Your task to perform on an android device: install app "Google Drive" Image 0: 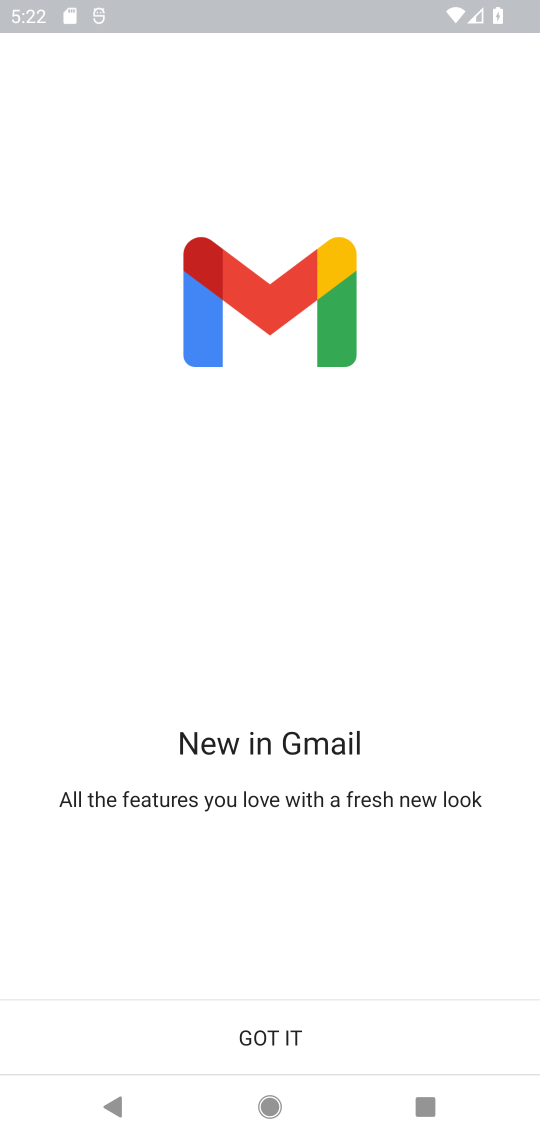
Step 0: press home button
Your task to perform on an android device: install app "Google Drive" Image 1: 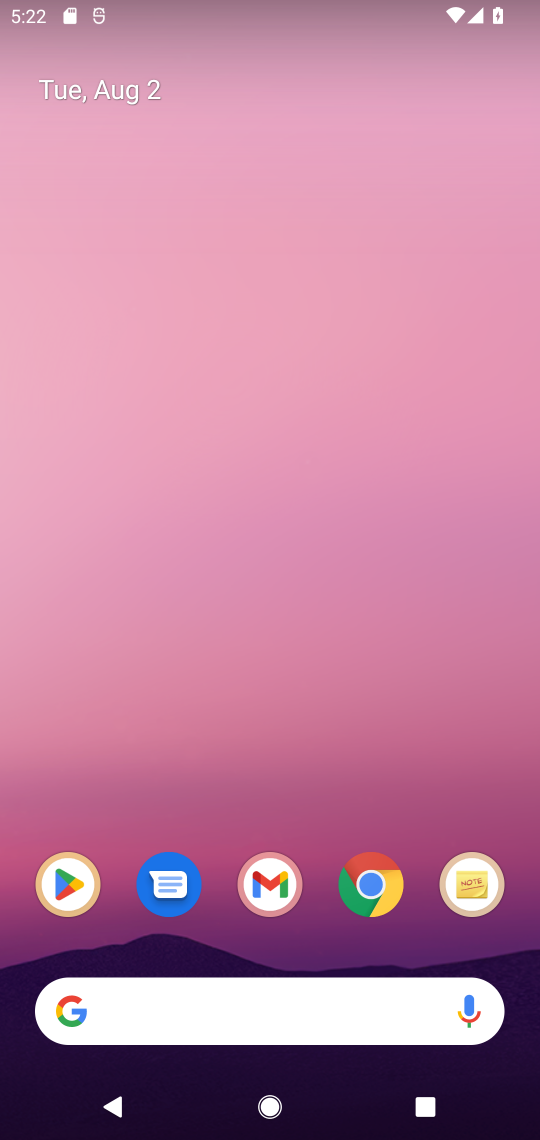
Step 1: drag from (354, 787) to (479, 19)
Your task to perform on an android device: install app "Google Drive" Image 2: 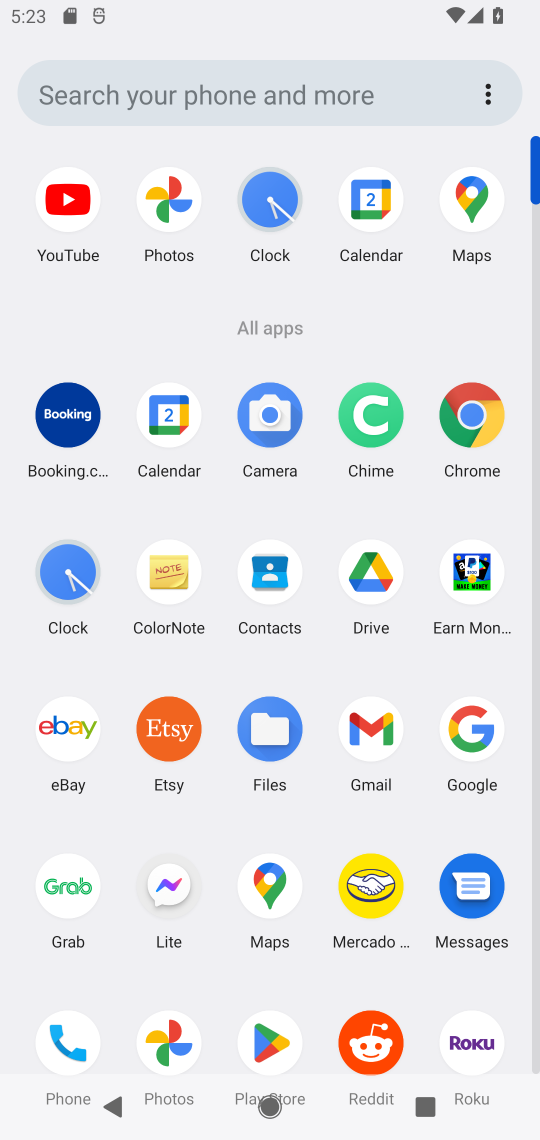
Step 2: click (261, 1035)
Your task to perform on an android device: install app "Google Drive" Image 3: 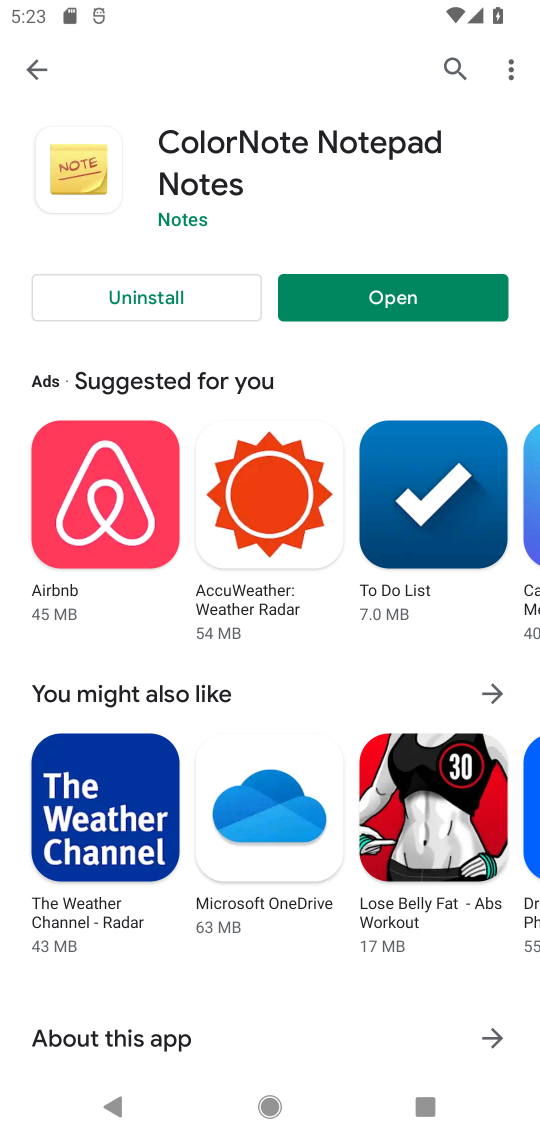
Step 3: click (41, 66)
Your task to perform on an android device: install app "Google Drive" Image 4: 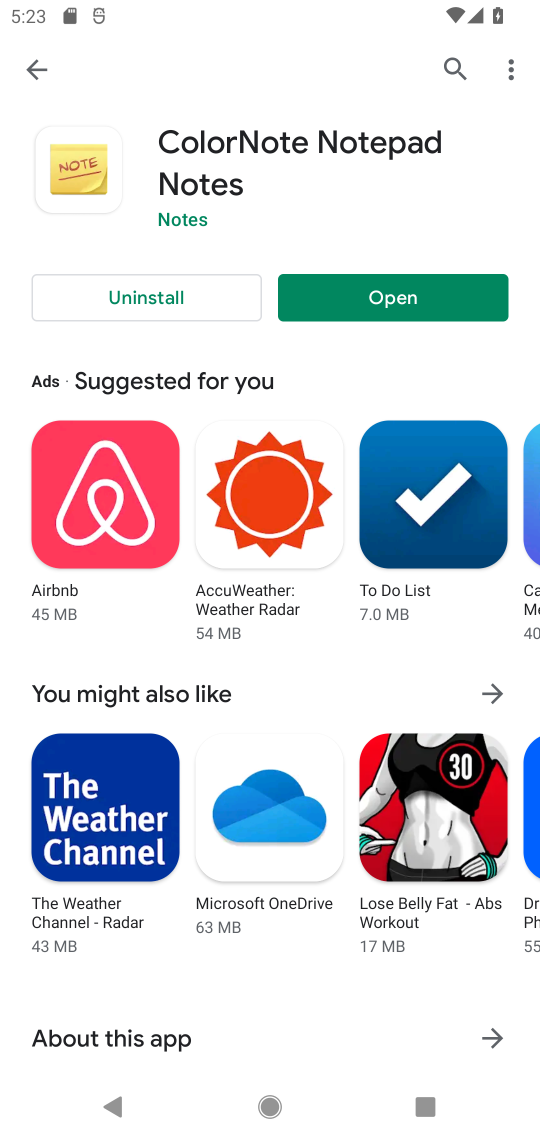
Step 4: click (40, 61)
Your task to perform on an android device: install app "Google Drive" Image 5: 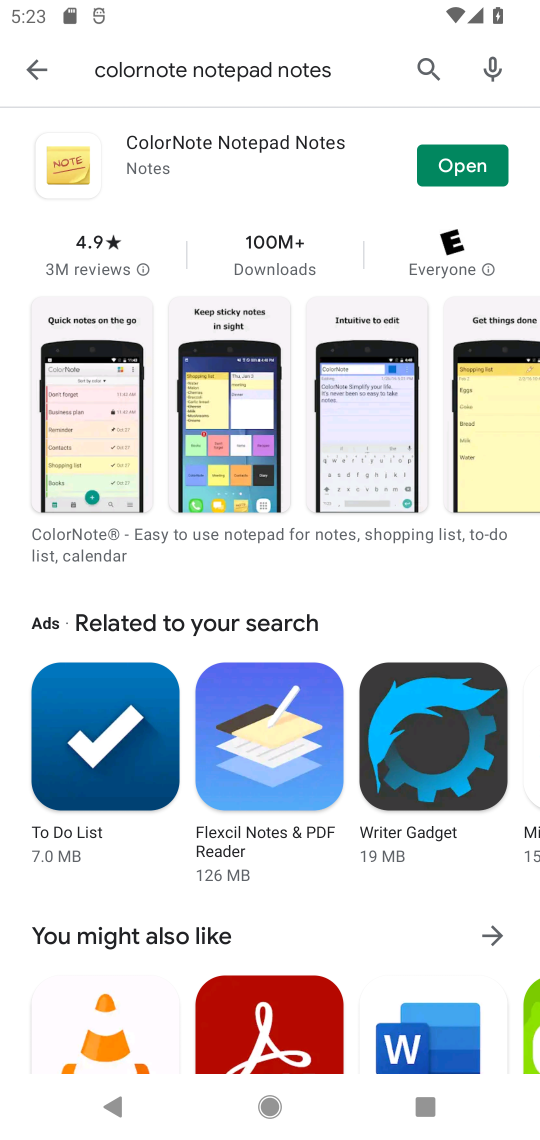
Step 5: click (432, 65)
Your task to perform on an android device: install app "Google Drive" Image 6: 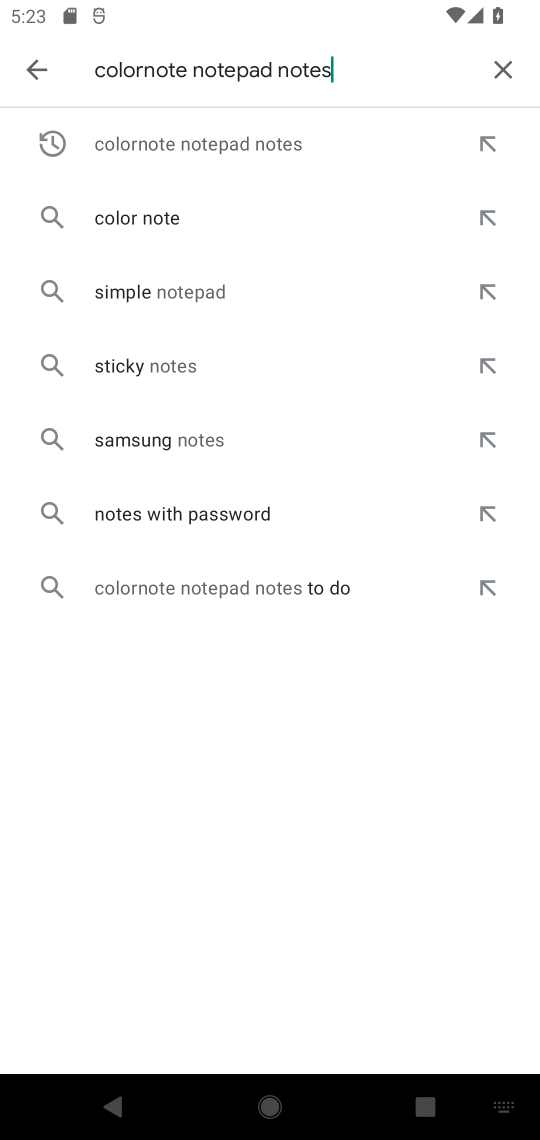
Step 6: click (509, 52)
Your task to perform on an android device: install app "Google Drive" Image 7: 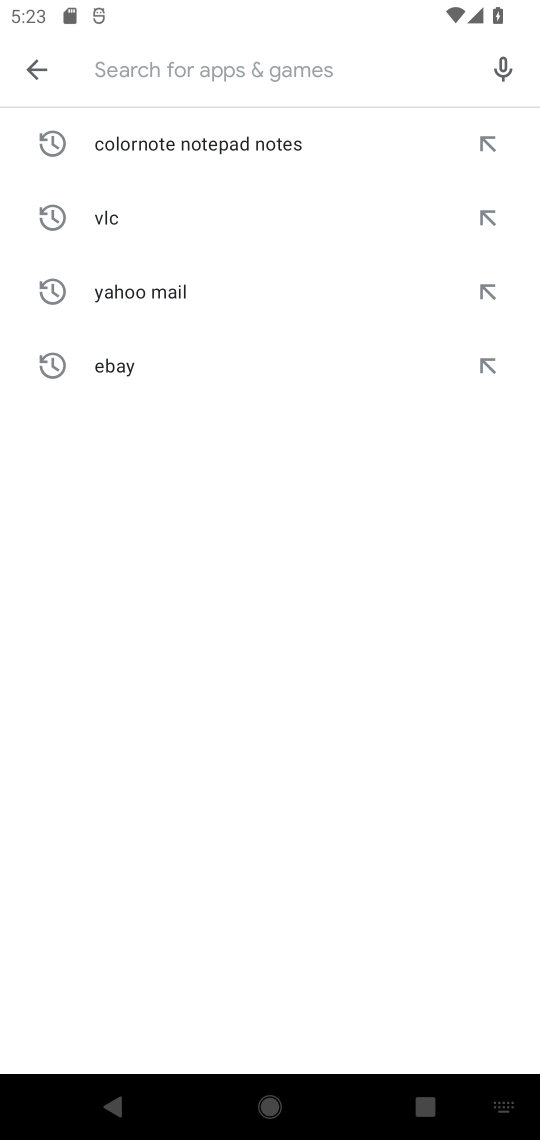
Step 7: type ""Google Drive""
Your task to perform on an android device: install app "Google Drive" Image 8: 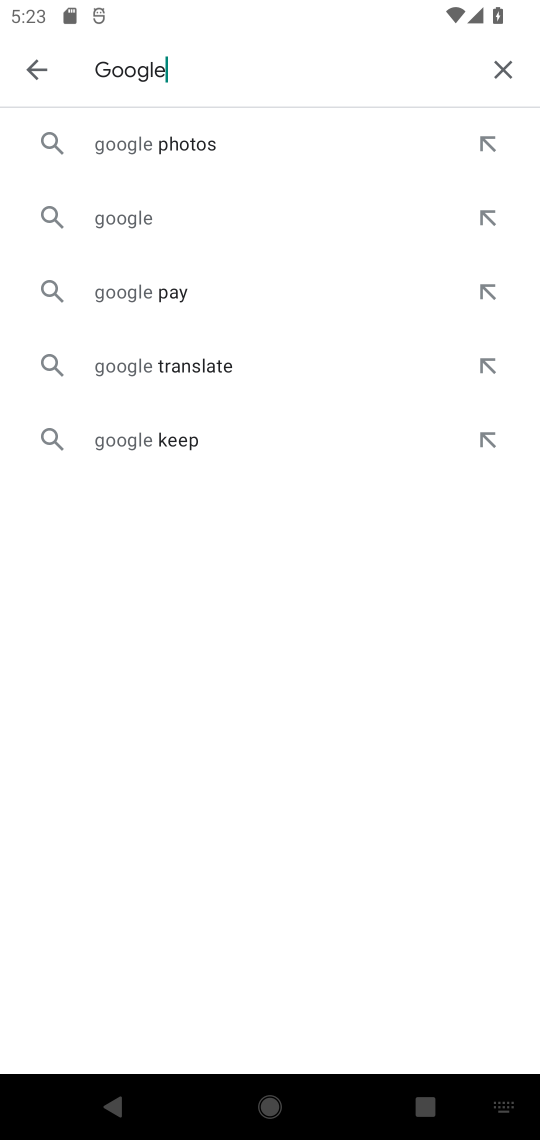
Step 8: click (226, 54)
Your task to perform on an android device: install app "Google Drive" Image 9: 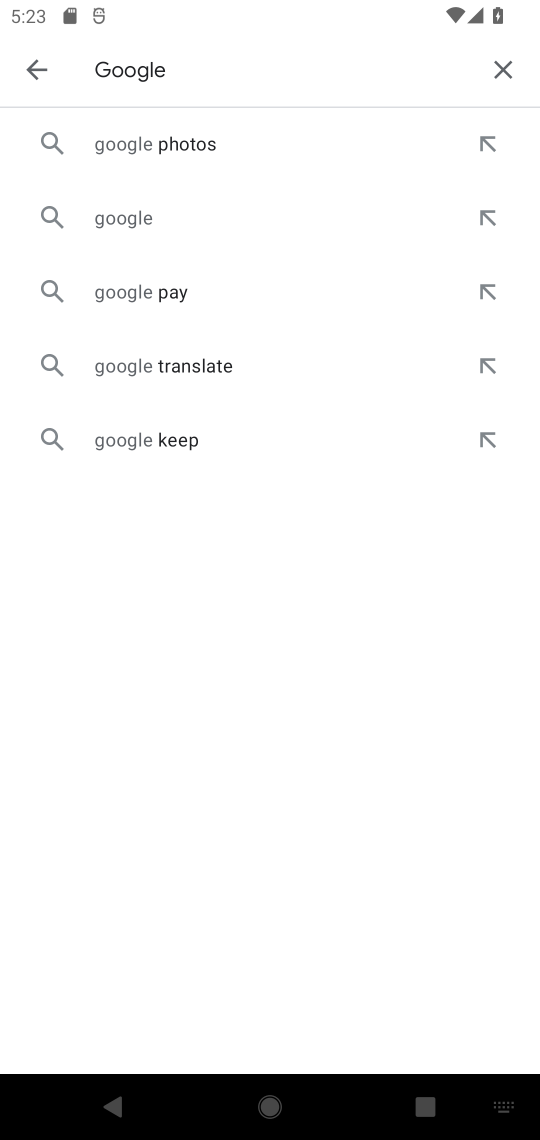
Step 9: type " Drive"
Your task to perform on an android device: install app "Google Drive" Image 10: 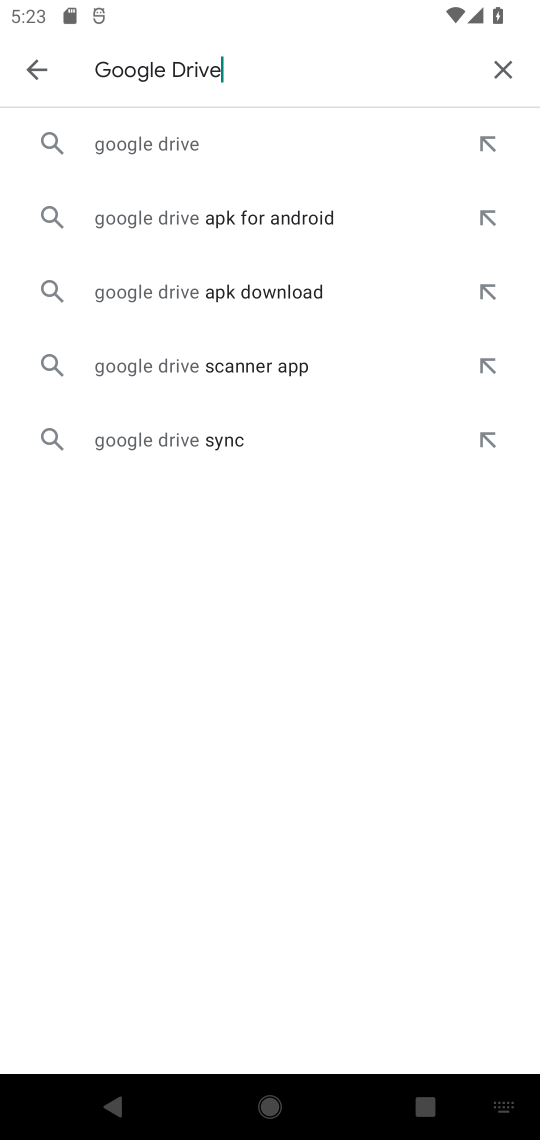
Step 10: click (159, 131)
Your task to perform on an android device: install app "Google Drive" Image 11: 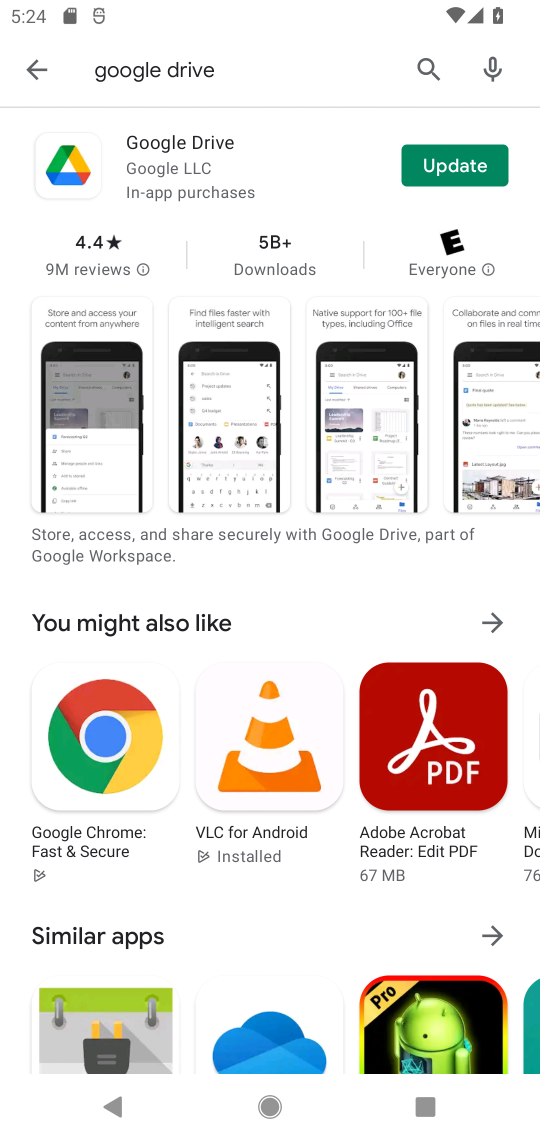
Step 11: task complete